Your task to perform on an android device: Go to Reddit.com Image 0: 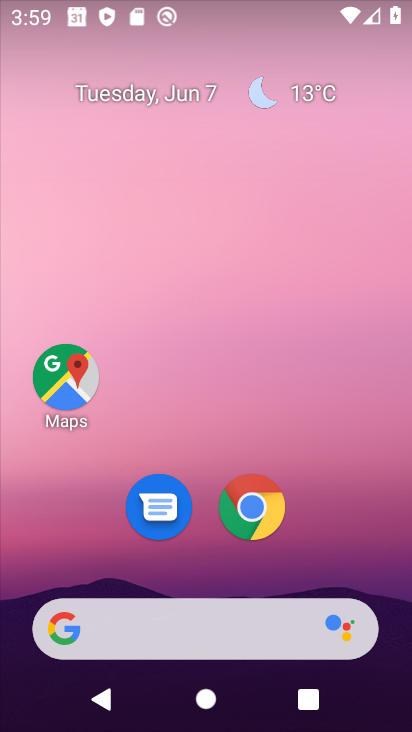
Step 0: drag from (312, 199) to (303, 53)
Your task to perform on an android device: Go to Reddit.com Image 1: 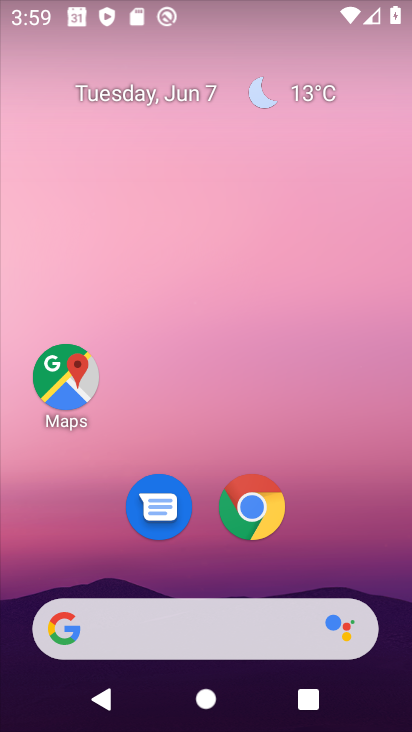
Step 1: drag from (308, 514) to (218, 2)
Your task to perform on an android device: Go to Reddit.com Image 2: 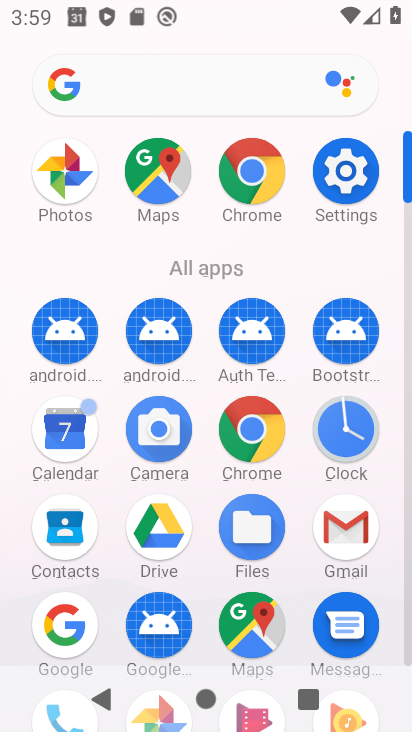
Step 2: drag from (3, 581) to (2, 237)
Your task to perform on an android device: Go to Reddit.com Image 3: 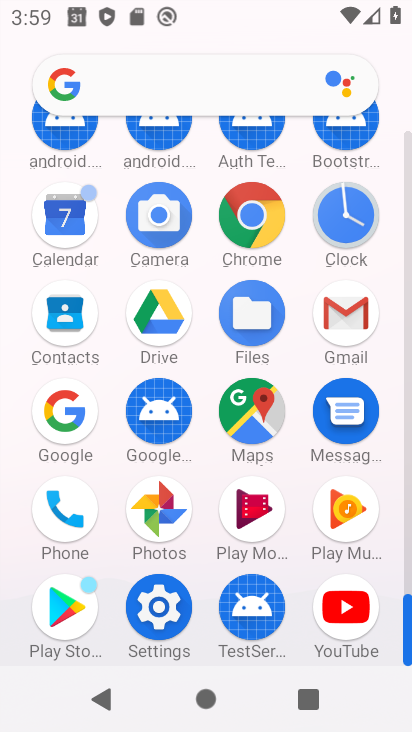
Step 3: click (251, 215)
Your task to perform on an android device: Go to Reddit.com Image 4: 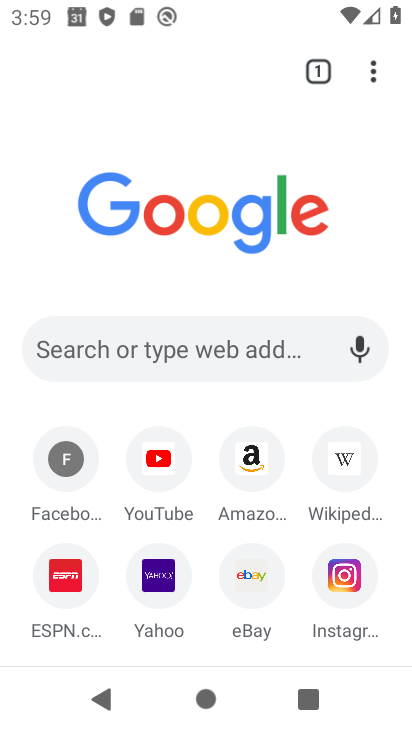
Step 4: click (218, 358)
Your task to perform on an android device: Go to Reddit.com Image 5: 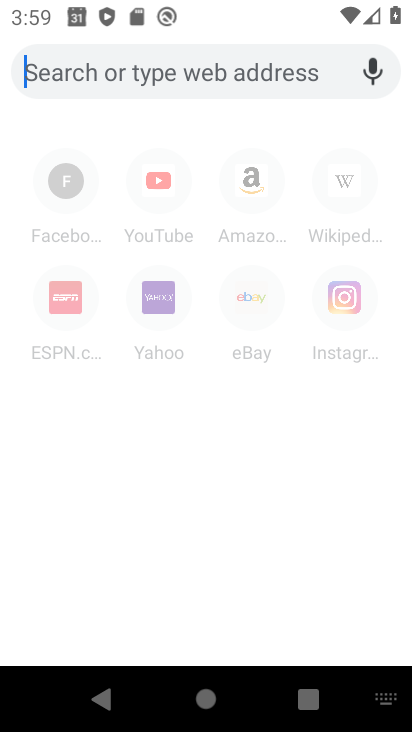
Step 5: type " Reddit.com"
Your task to perform on an android device: Go to Reddit.com Image 6: 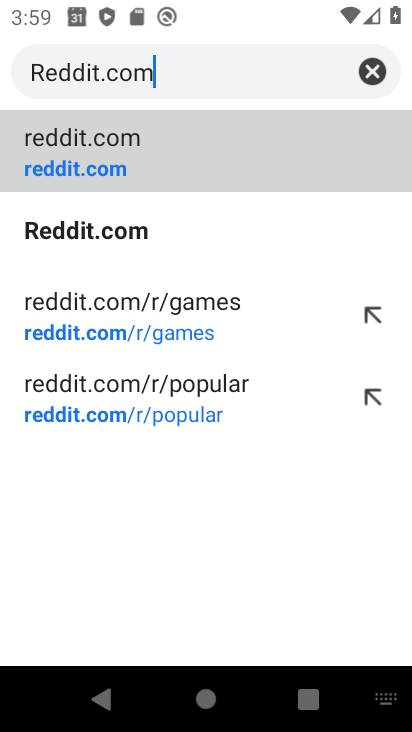
Step 6: click (158, 161)
Your task to perform on an android device: Go to Reddit.com Image 7: 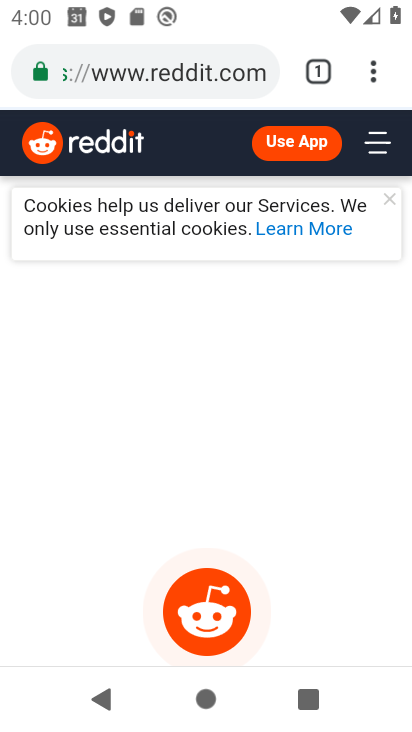
Step 7: task complete